Your task to perform on an android device: set an alarm Image 0: 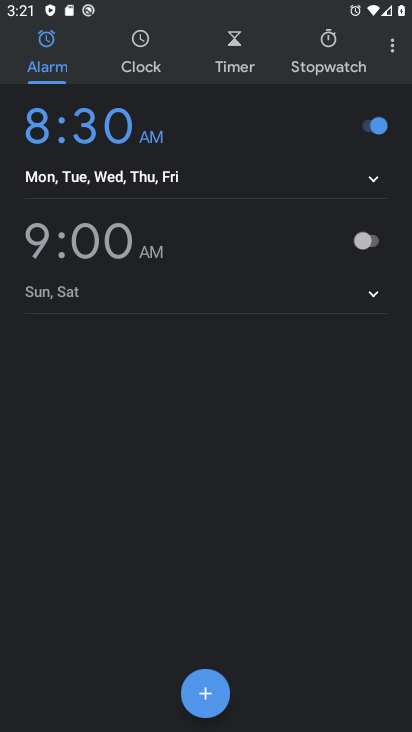
Step 0: task complete